Your task to perform on an android device: open device folders in google photos Image 0: 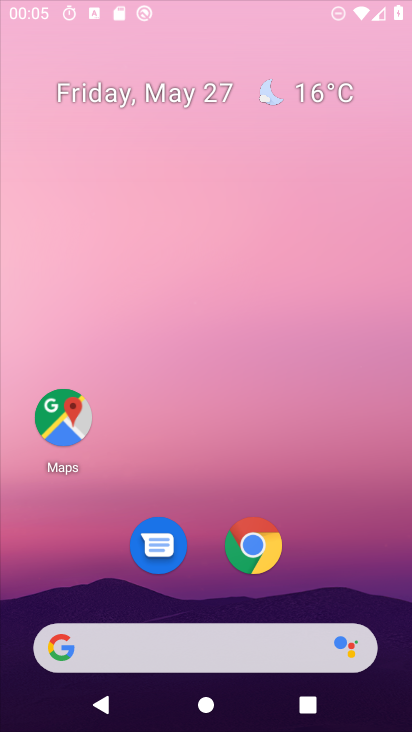
Step 0: press home button
Your task to perform on an android device: open device folders in google photos Image 1: 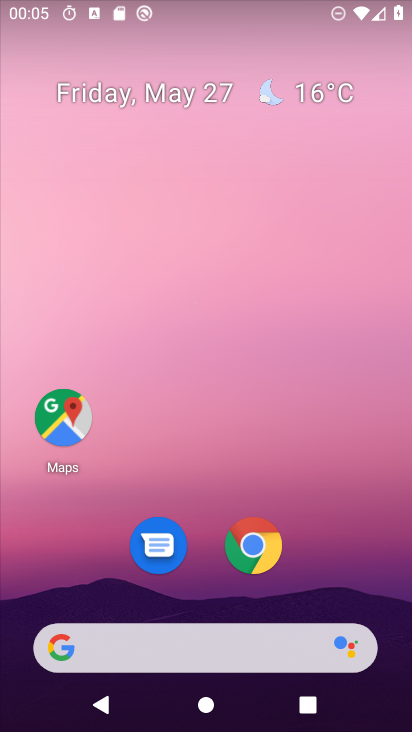
Step 1: drag from (287, 605) to (244, 227)
Your task to perform on an android device: open device folders in google photos Image 2: 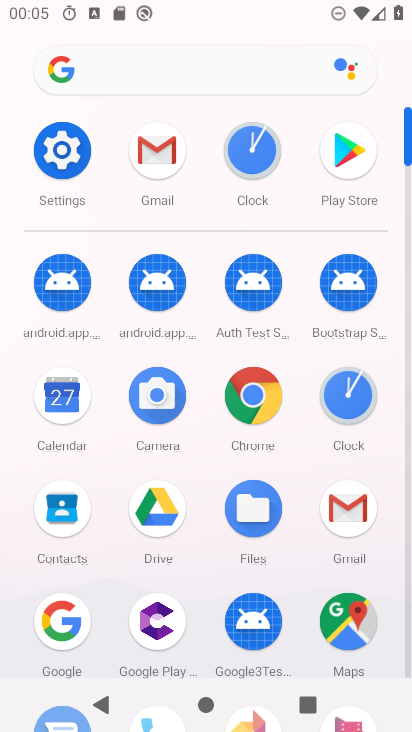
Step 2: drag from (386, 547) to (330, 289)
Your task to perform on an android device: open device folders in google photos Image 3: 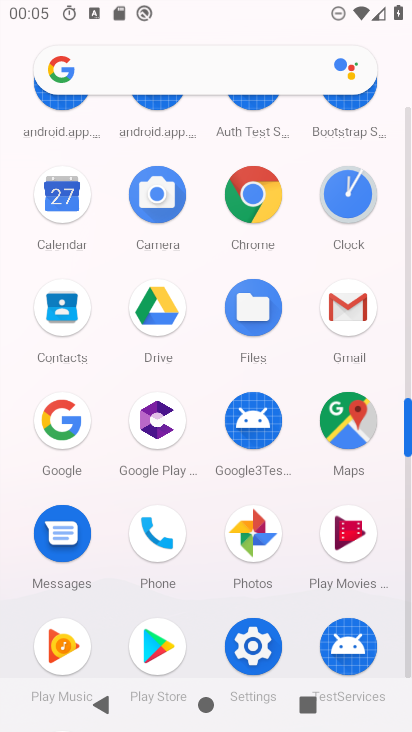
Step 3: click (257, 529)
Your task to perform on an android device: open device folders in google photos Image 4: 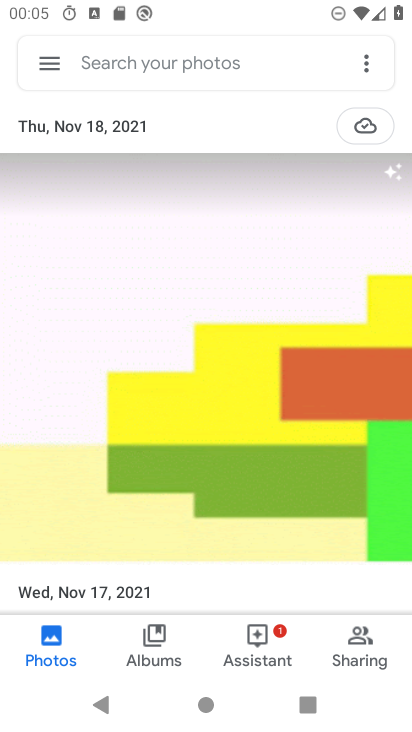
Step 4: click (38, 60)
Your task to perform on an android device: open device folders in google photos Image 5: 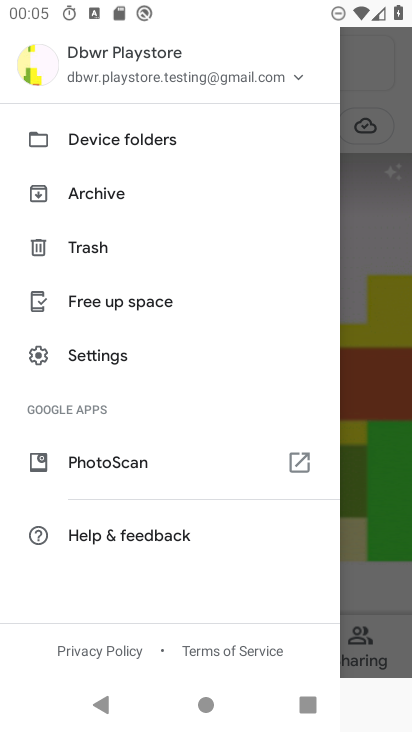
Step 5: click (108, 142)
Your task to perform on an android device: open device folders in google photos Image 6: 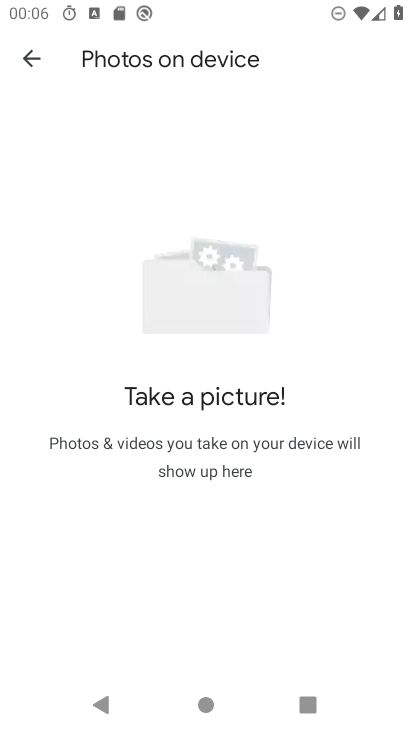
Step 6: task complete